Your task to perform on an android device: What's the weather? Image 0: 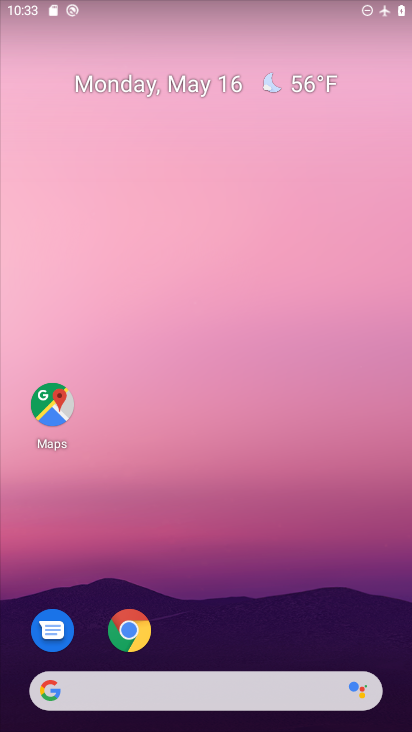
Step 0: click (273, 683)
Your task to perform on an android device: What's the weather? Image 1: 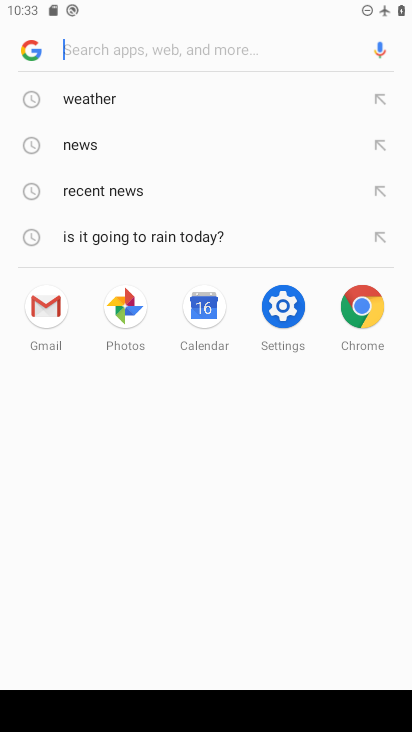
Step 1: click (101, 99)
Your task to perform on an android device: What's the weather? Image 2: 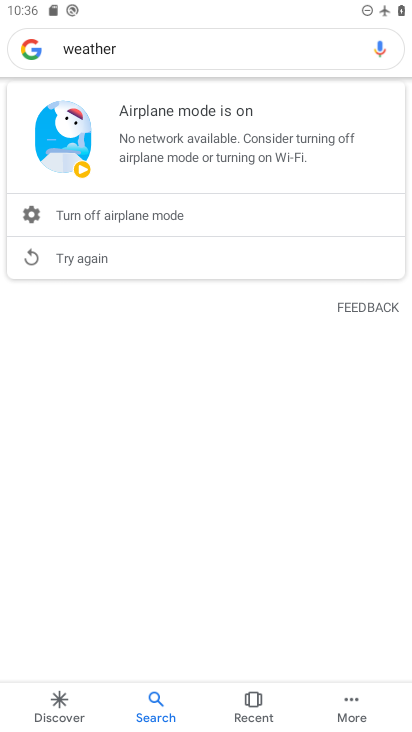
Step 2: task complete